Your task to perform on an android device: Go to Maps Image 0: 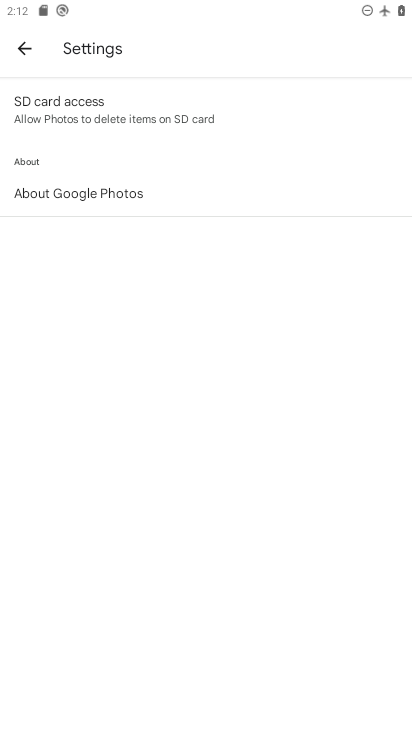
Step 0: press home button
Your task to perform on an android device: Go to Maps Image 1: 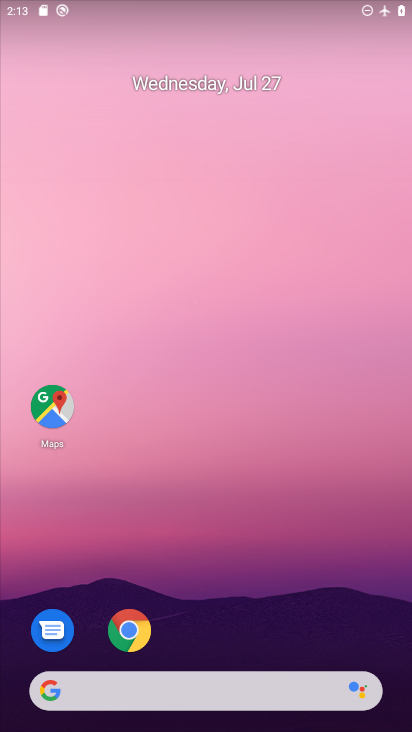
Step 1: click (55, 409)
Your task to perform on an android device: Go to Maps Image 2: 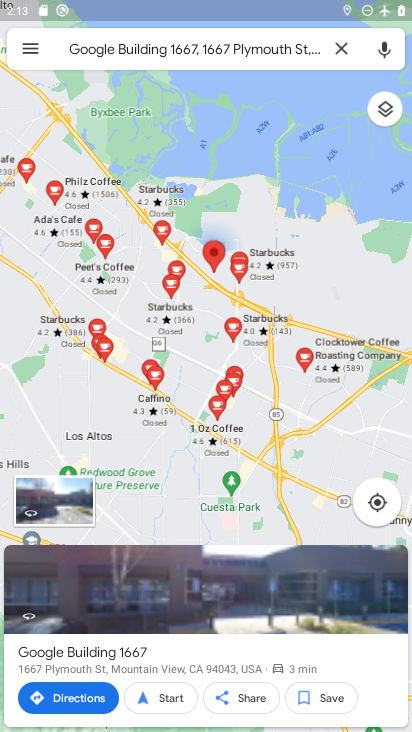
Step 2: click (337, 47)
Your task to perform on an android device: Go to Maps Image 3: 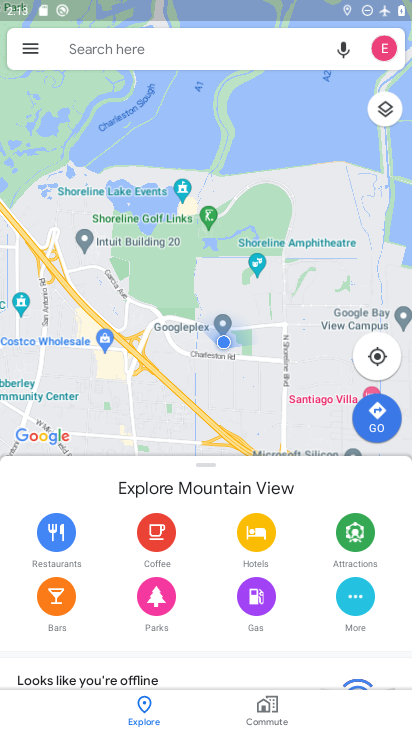
Step 3: task complete